Your task to perform on an android device: toggle priority inbox in the gmail app Image 0: 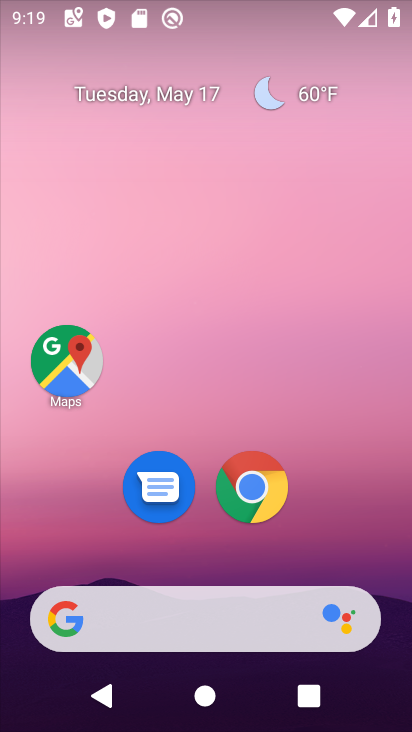
Step 0: drag from (202, 560) to (282, 23)
Your task to perform on an android device: toggle priority inbox in the gmail app Image 1: 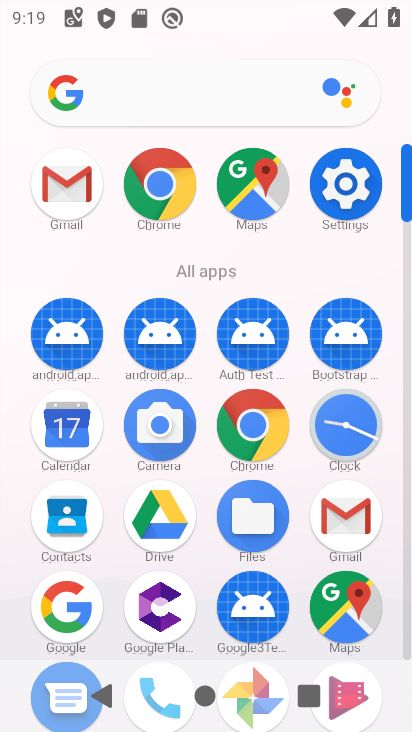
Step 1: click (351, 528)
Your task to perform on an android device: toggle priority inbox in the gmail app Image 2: 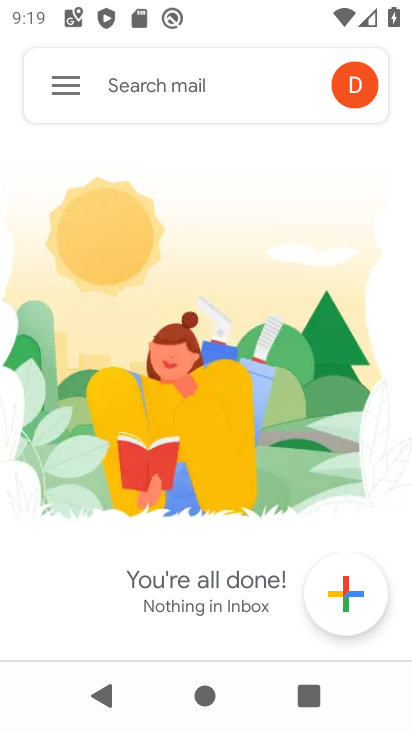
Step 2: click (72, 90)
Your task to perform on an android device: toggle priority inbox in the gmail app Image 3: 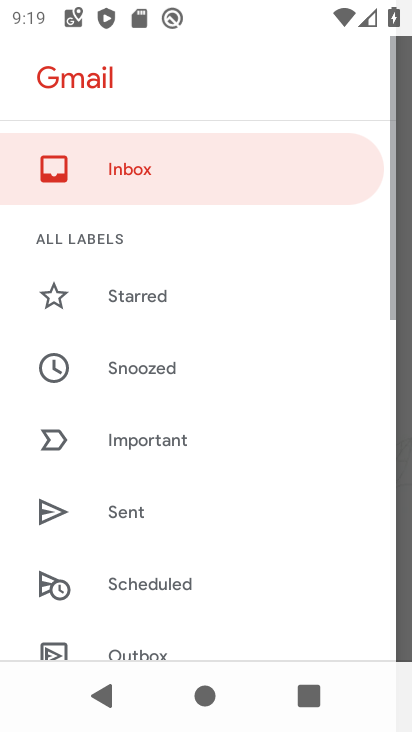
Step 3: drag from (139, 542) to (219, 65)
Your task to perform on an android device: toggle priority inbox in the gmail app Image 4: 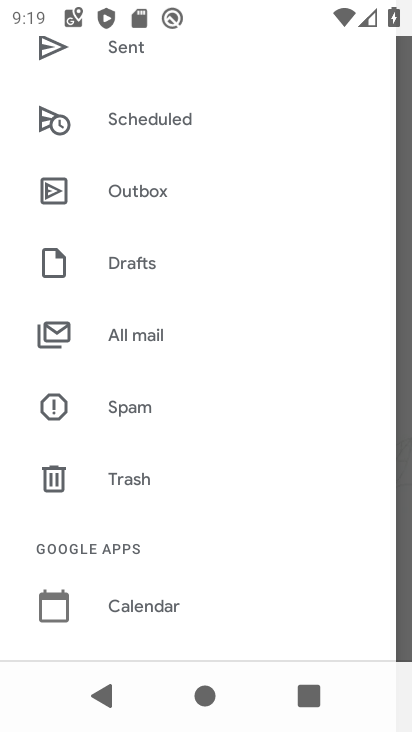
Step 4: drag from (114, 556) to (170, 226)
Your task to perform on an android device: toggle priority inbox in the gmail app Image 5: 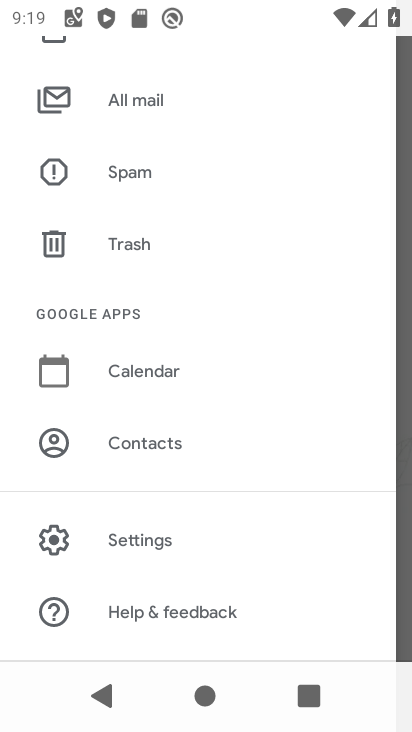
Step 5: click (134, 538)
Your task to perform on an android device: toggle priority inbox in the gmail app Image 6: 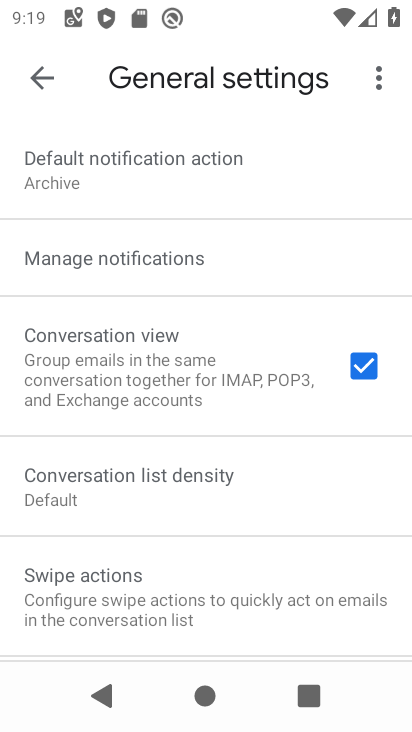
Step 6: click (47, 76)
Your task to perform on an android device: toggle priority inbox in the gmail app Image 7: 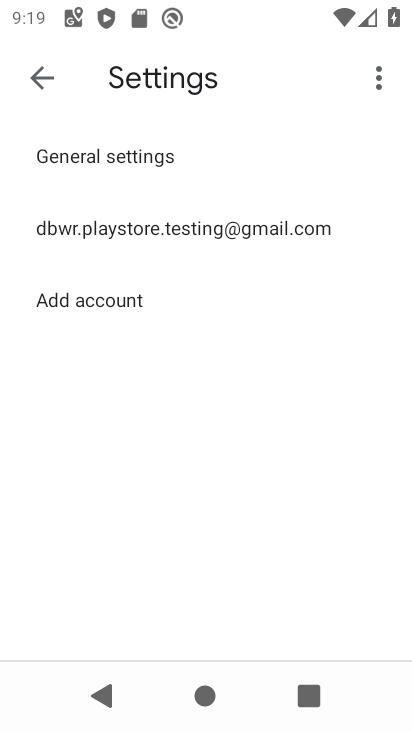
Step 7: click (119, 230)
Your task to perform on an android device: toggle priority inbox in the gmail app Image 8: 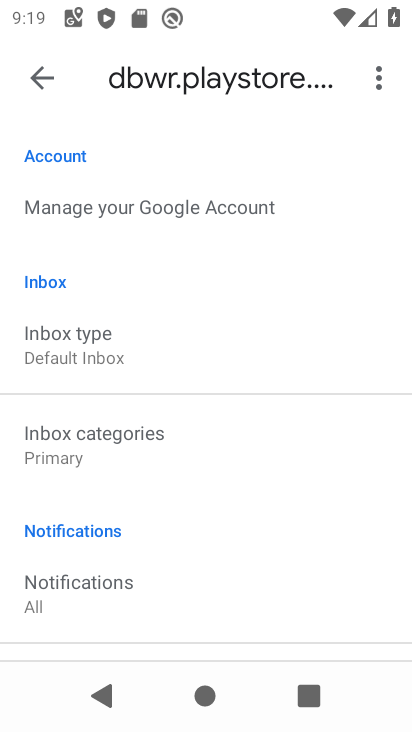
Step 8: click (92, 328)
Your task to perform on an android device: toggle priority inbox in the gmail app Image 9: 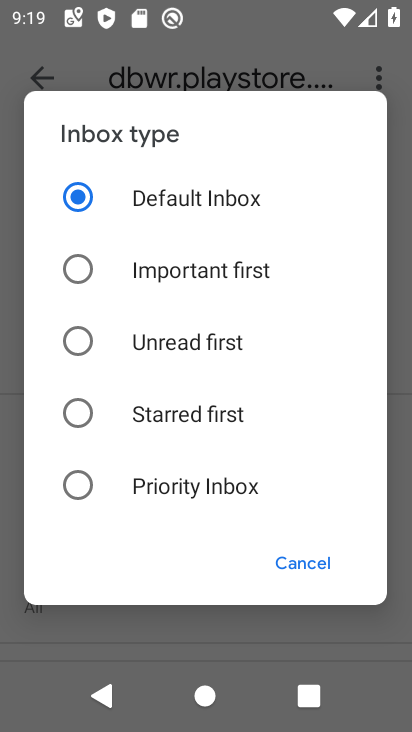
Step 9: click (160, 499)
Your task to perform on an android device: toggle priority inbox in the gmail app Image 10: 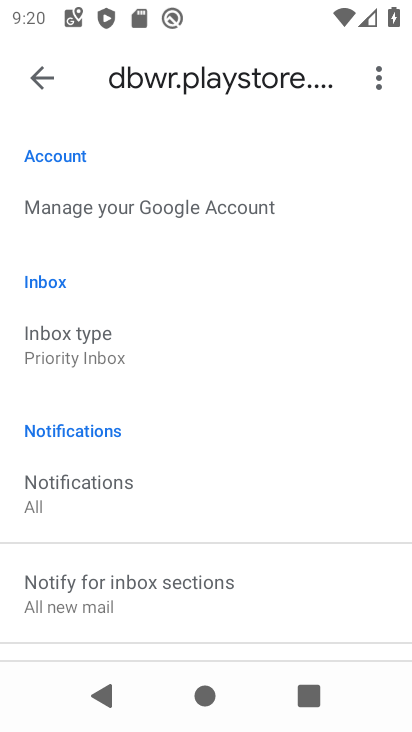
Step 10: task complete